Your task to perform on an android device: delete the emails in spam in the gmail app Image 0: 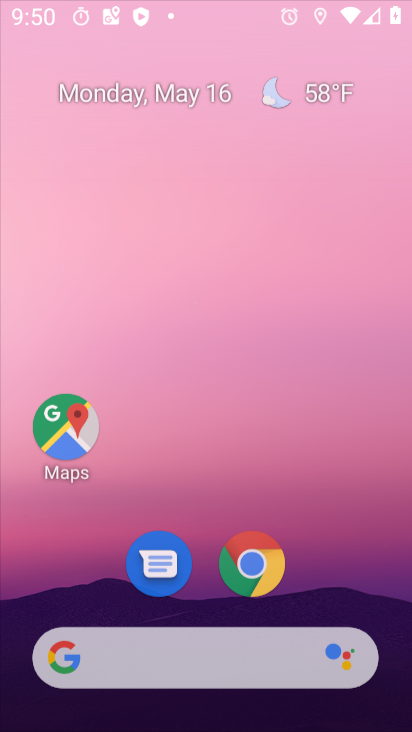
Step 0: click (131, 175)
Your task to perform on an android device: delete the emails in spam in the gmail app Image 1: 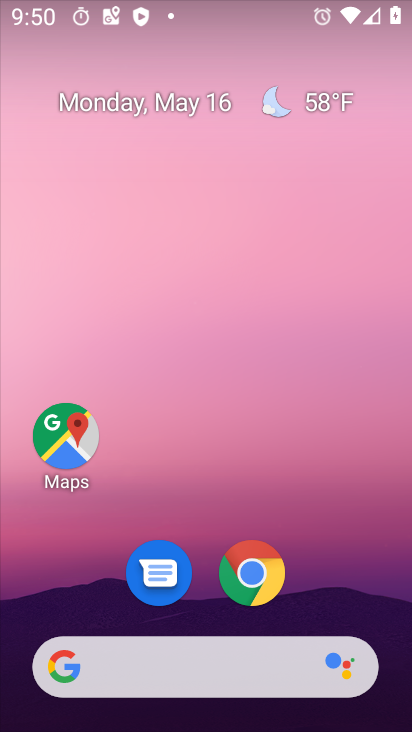
Step 1: drag from (362, 617) to (286, 178)
Your task to perform on an android device: delete the emails in spam in the gmail app Image 2: 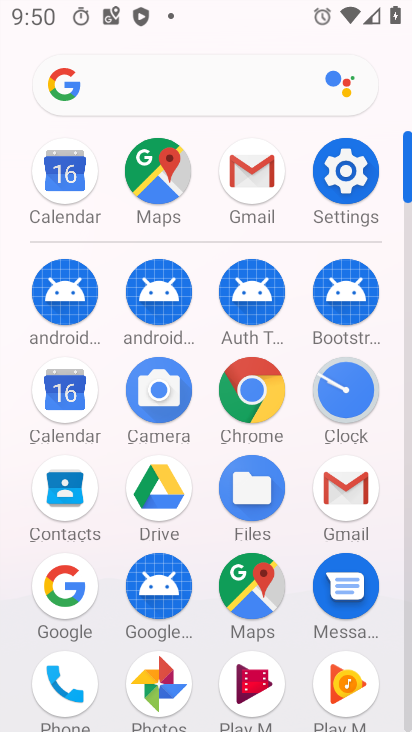
Step 2: click (341, 485)
Your task to perform on an android device: delete the emails in spam in the gmail app Image 3: 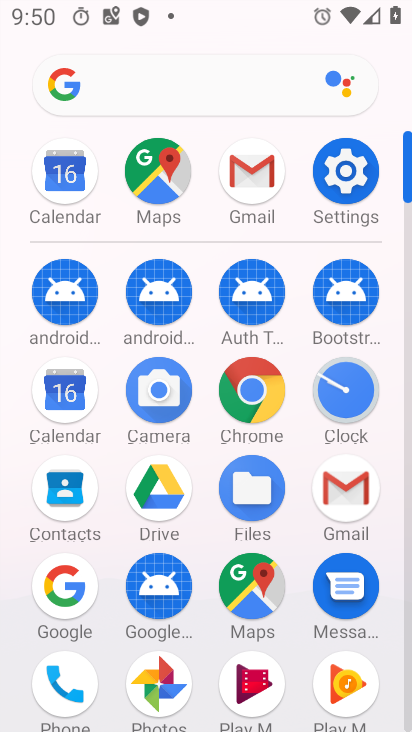
Step 3: click (350, 484)
Your task to perform on an android device: delete the emails in spam in the gmail app Image 4: 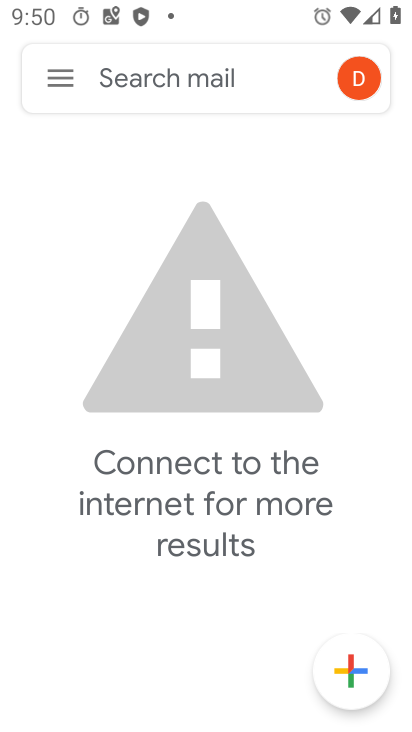
Step 4: click (351, 483)
Your task to perform on an android device: delete the emails in spam in the gmail app Image 5: 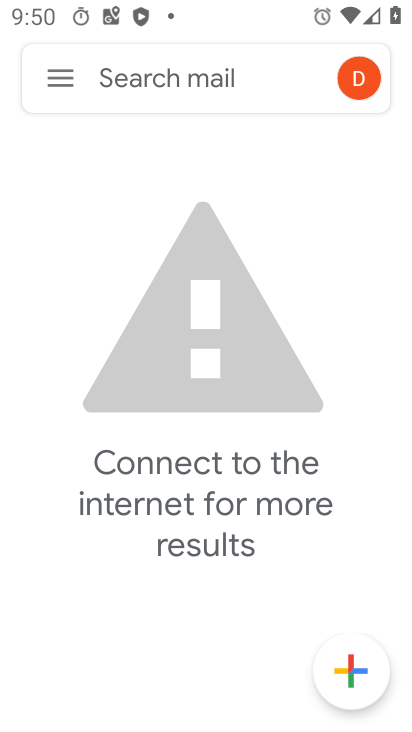
Step 5: click (351, 480)
Your task to perform on an android device: delete the emails in spam in the gmail app Image 6: 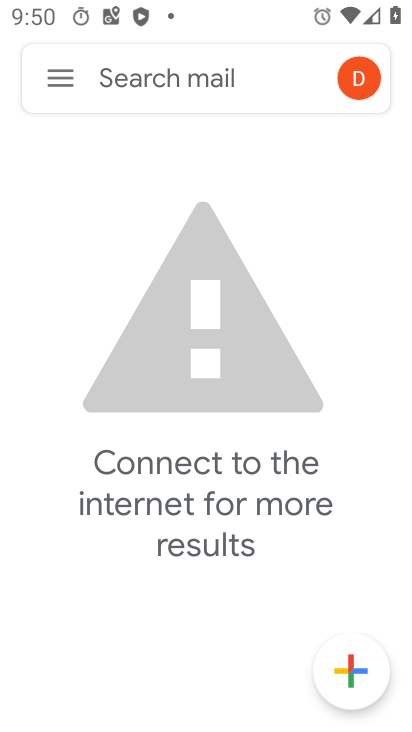
Step 6: click (350, 479)
Your task to perform on an android device: delete the emails in spam in the gmail app Image 7: 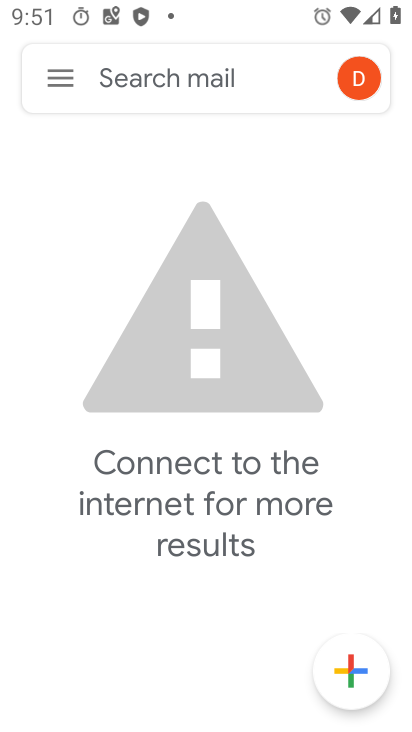
Step 7: click (55, 47)
Your task to perform on an android device: delete the emails in spam in the gmail app Image 8: 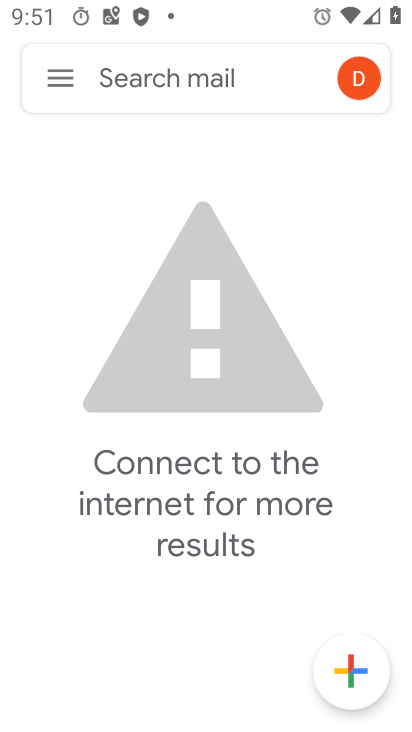
Step 8: drag from (67, 76) to (105, 637)
Your task to perform on an android device: delete the emails in spam in the gmail app Image 9: 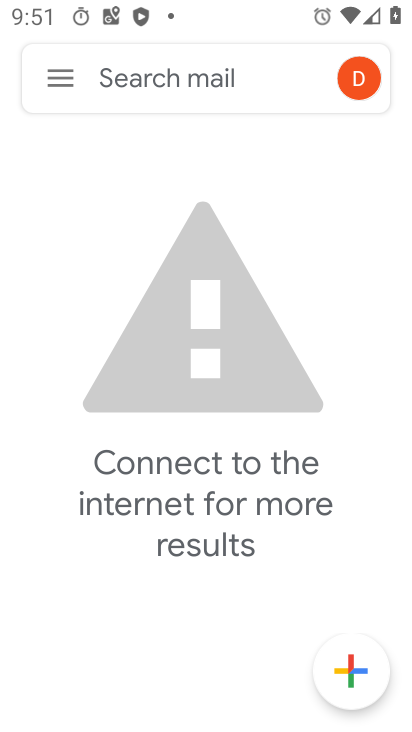
Step 9: click (74, 83)
Your task to perform on an android device: delete the emails in spam in the gmail app Image 10: 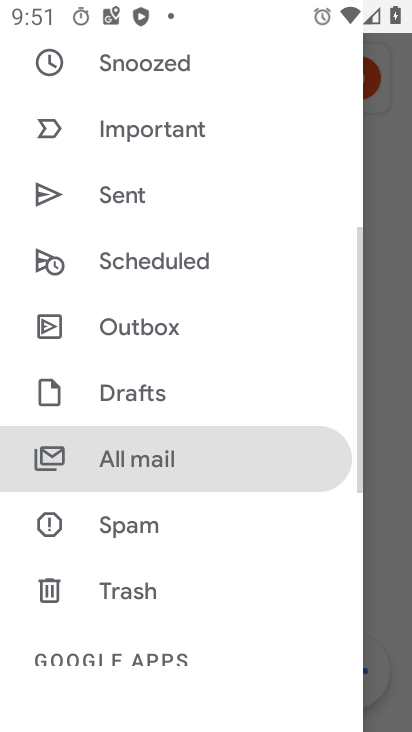
Step 10: click (134, 537)
Your task to perform on an android device: delete the emails in spam in the gmail app Image 11: 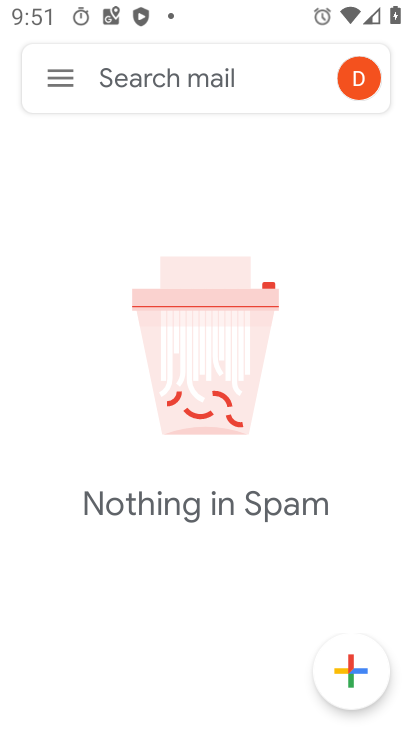
Step 11: task complete